Your task to perform on an android device: Open settings on Google Maps Image 0: 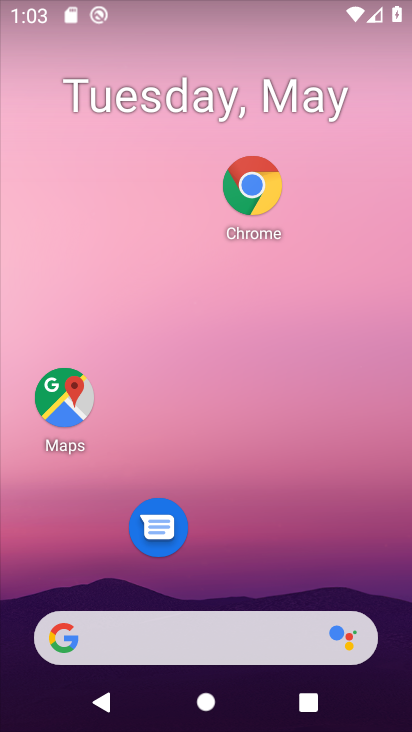
Step 0: click (55, 400)
Your task to perform on an android device: Open settings on Google Maps Image 1: 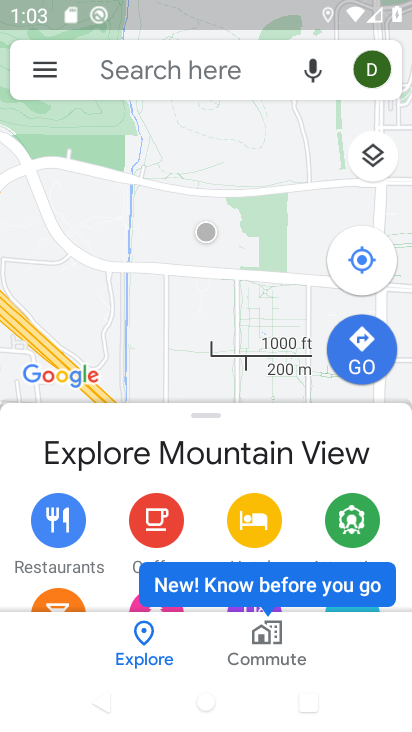
Step 1: click (45, 71)
Your task to perform on an android device: Open settings on Google Maps Image 2: 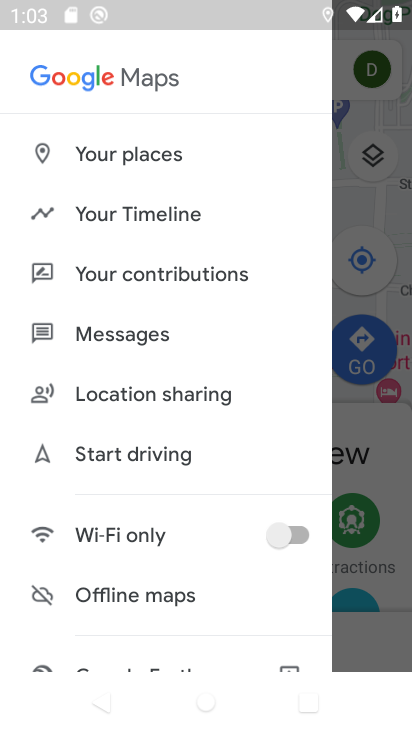
Step 2: drag from (214, 537) to (196, 3)
Your task to perform on an android device: Open settings on Google Maps Image 3: 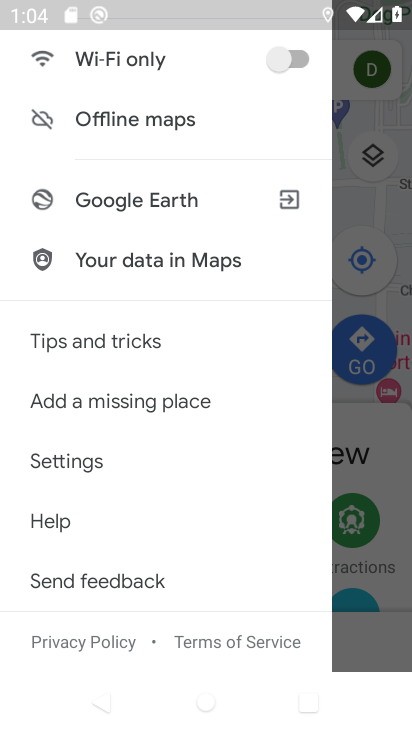
Step 3: click (63, 456)
Your task to perform on an android device: Open settings on Google Maps Image 4: 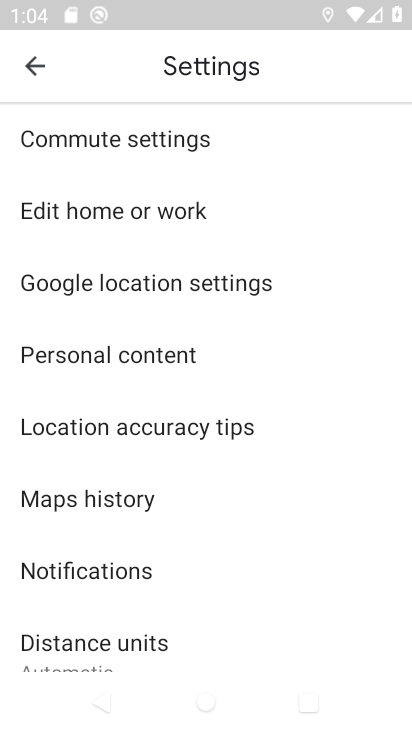
Step 4: task complete